Your task to perform on an android device: Go to network settings Image 0: 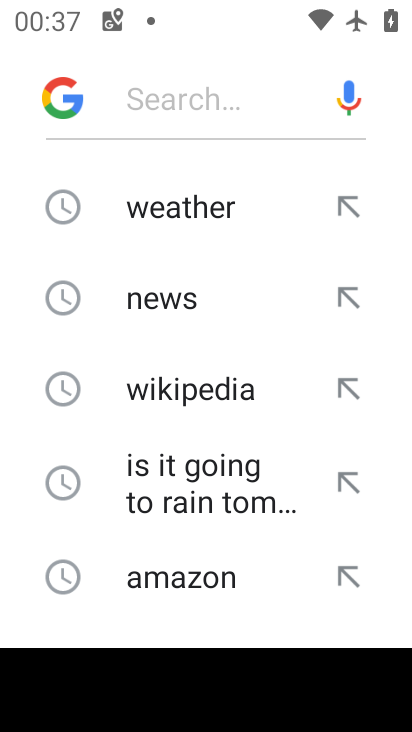
Step 0: press home button
Your task to perform on an android device: Go to network settings Image 1: 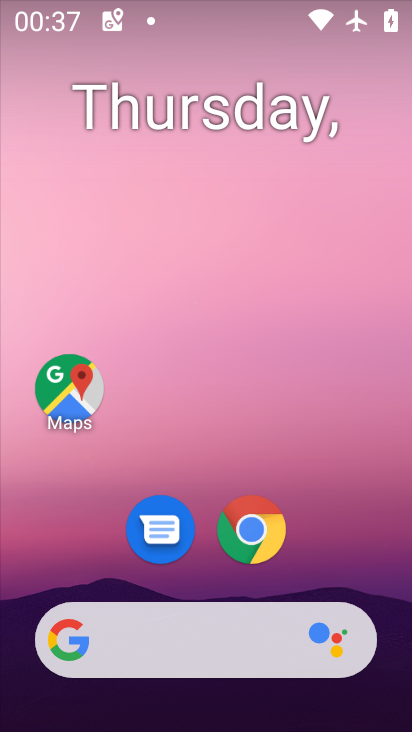
Step 1: drag from (390, 631) to (336, 95)
Your task to perform on an android device: Go to network settings Image 2: 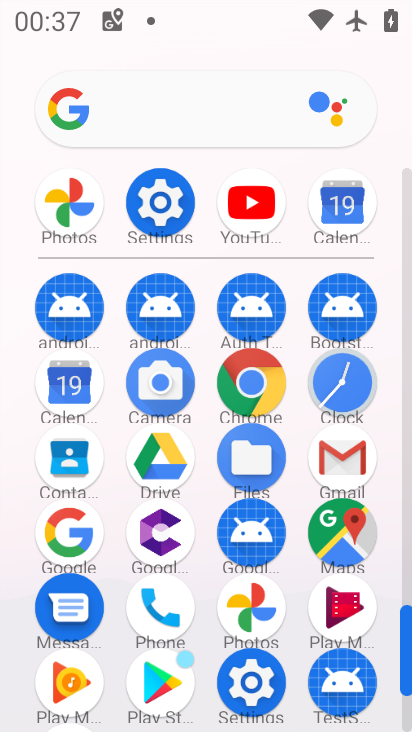
Step 2: click (408, 724)
Your task to perform on an android device: Go to network settings Image 3: 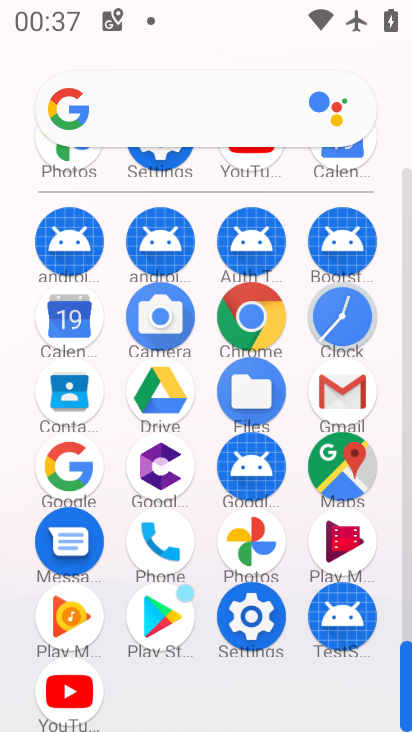
Step 3: click (252, 617)
Your task to perform on an android device: Go to network settings Image 4: 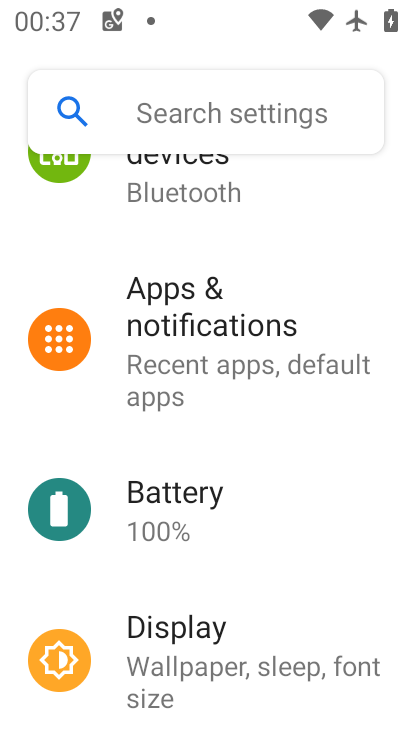
Step 4: drag from (353, 226) to (357, 552)
Your task to perform on an android device: Go to network settings Image 5: 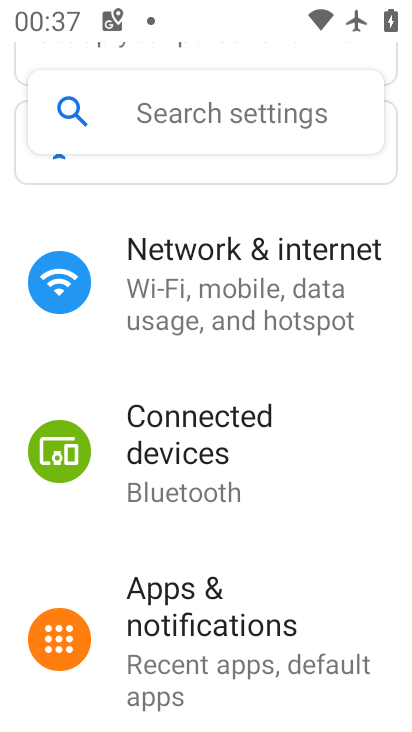
Step 5: click (217, 275)
Your task to perform on an android device: Go to network settings Image 6: 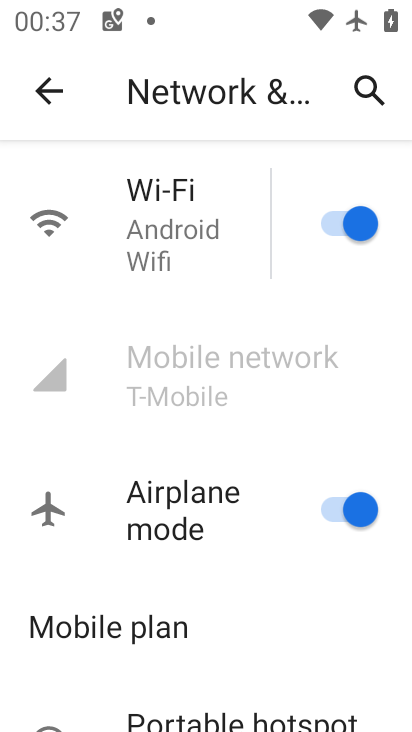
Step 6: click (137, 212)
Your task to perform on an android device: Go to network settings Image 7: 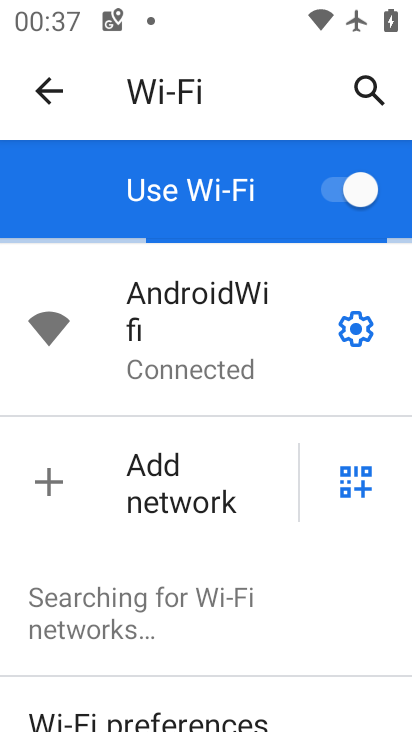
Step 7: task complete